Your task to perform on an android device: uninstall "TextNow: Call + Text Unlimited" Image 0: 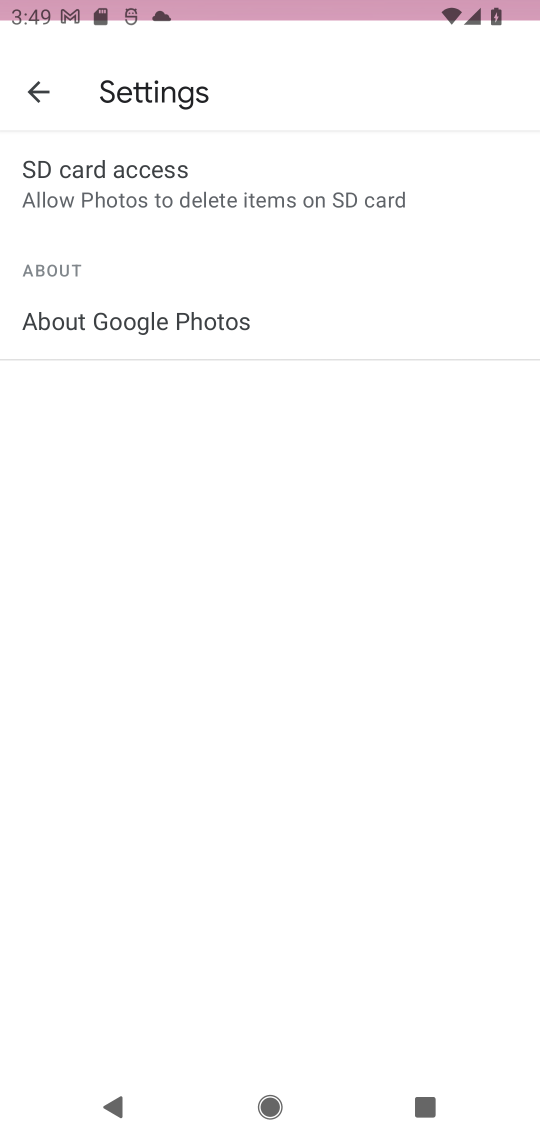
Step 0: press home button
Your task to perform on an android device: uninstall "TextNow: Call + Text Unlimited" Image 1: 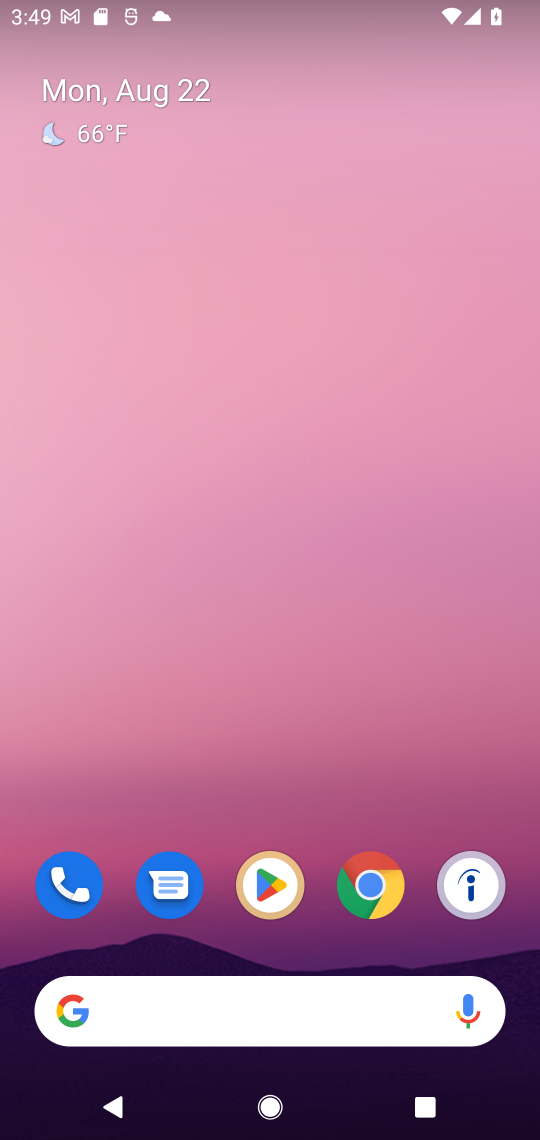
Step 1: click (264, 882)
Your task to perform on an android device: uninstall "TextNow: Call + Text Unlimited" Image 2: 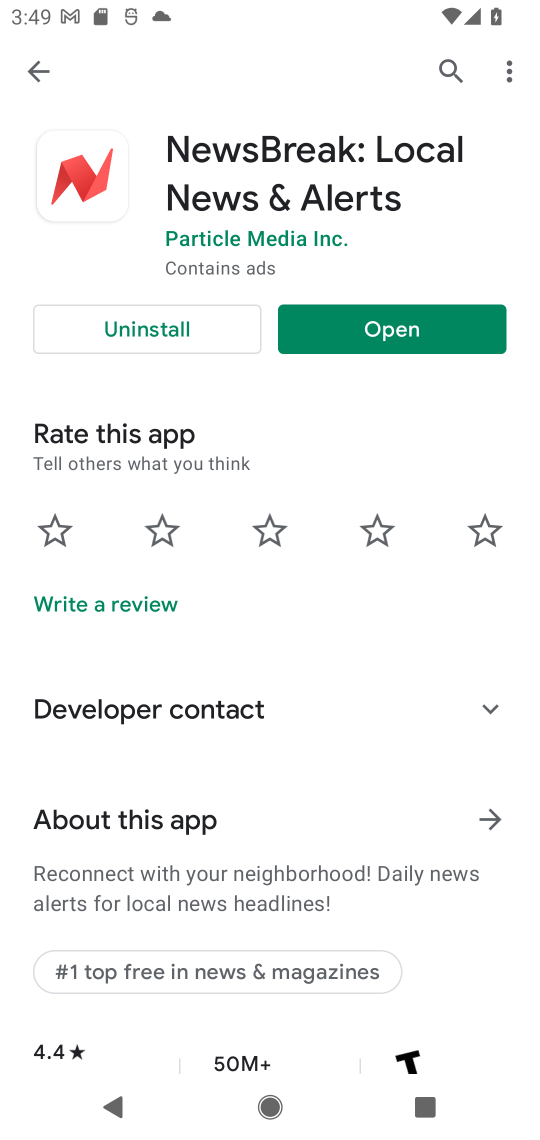
Step 2: click (455, 63)
Your task to perform on an android device: uninstall "TextNow: Call + Text Unlimited" Image 3: 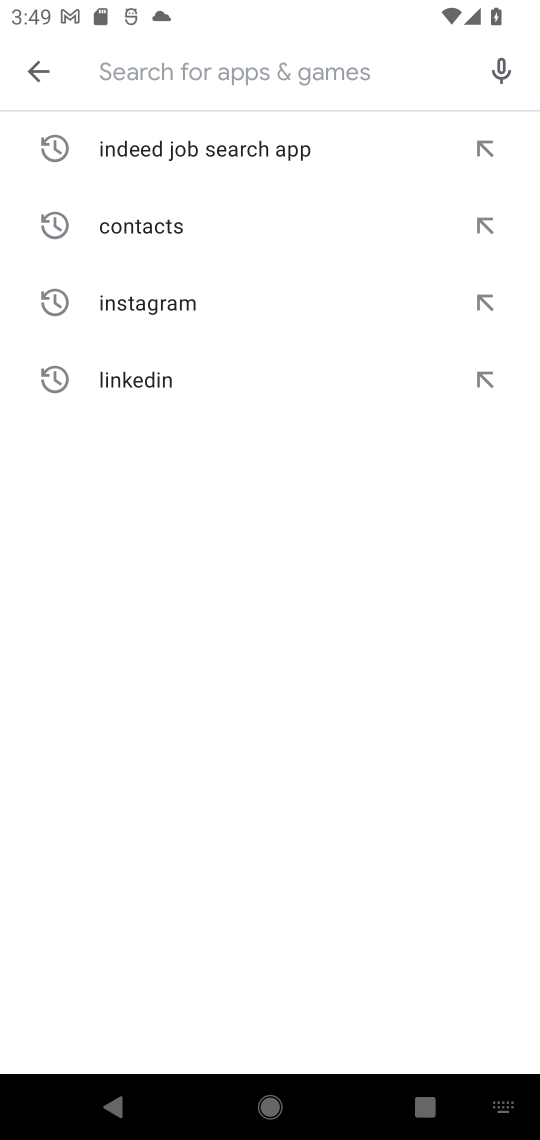
Step 3: type "TextNow: Call + Text Unlimited"
Your task to perform on an android device: uninstall "TextNow: Call + Text Unlimited" Image 4: 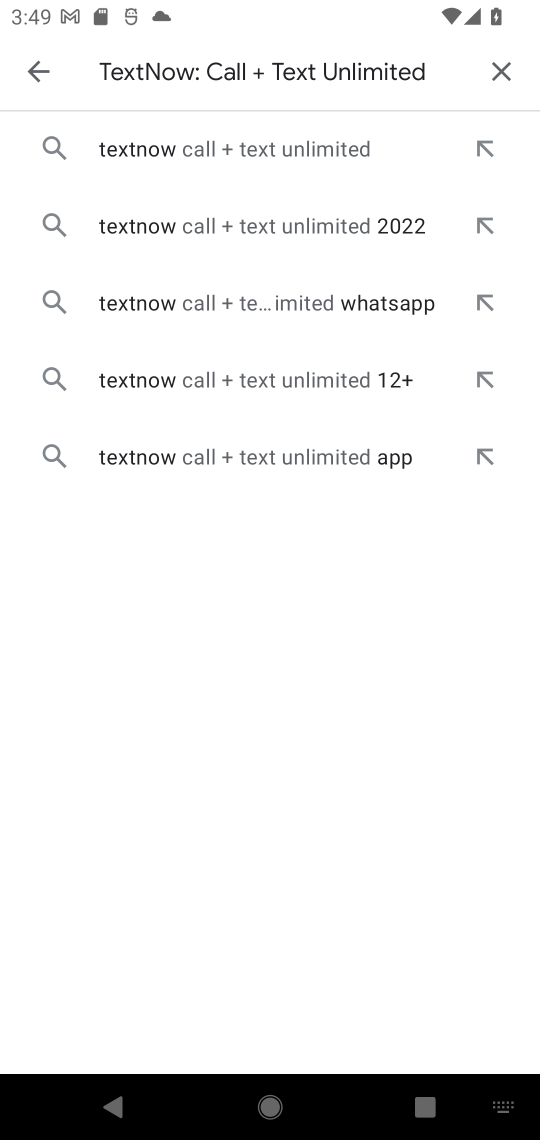
Step 4: click (182, 151)
Your task to perform on an android device: uninstall "TextNow: Call + Text Unlimited" Image 5: 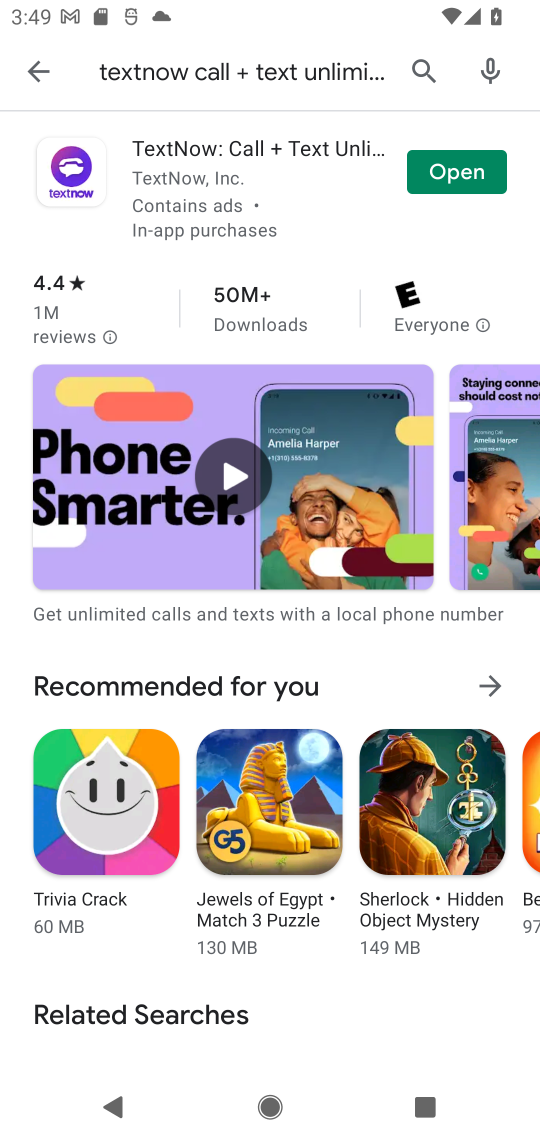
Step 5: task complete